Your task to perform on an android device: turn on location history Image 0: 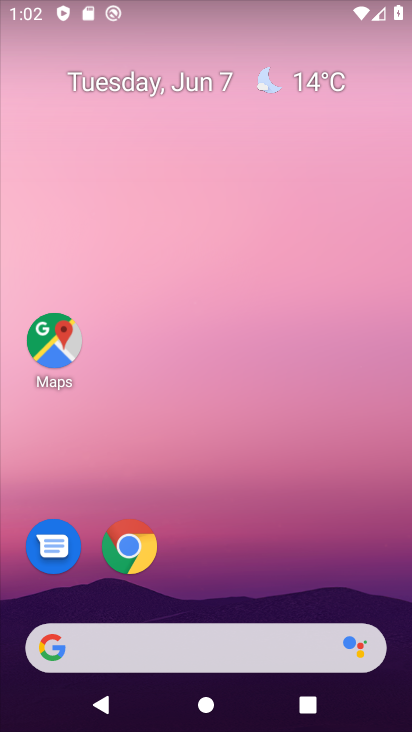
Step 0: drag from (215, 591) to (230, 76)
Your task to perform on an android device: turn on location history Image 1: 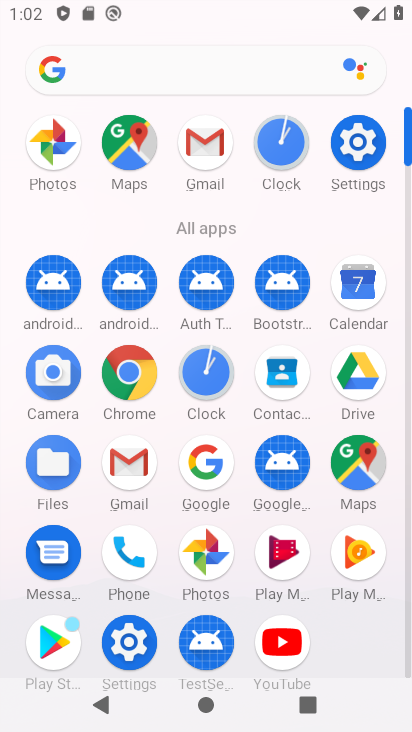
Step 1: click (360, 147)
Your task to perform on an android device: turn on location history Image 2: 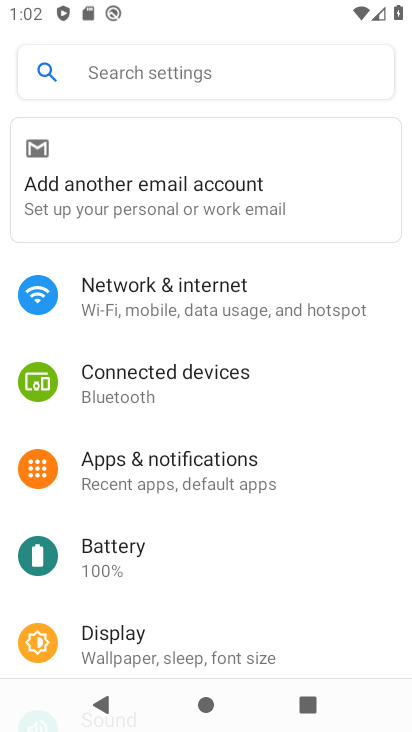
Step 2: drag from (157, 652) to (233, 56)
Your task to perform on an android device: turn on location history Image 3: 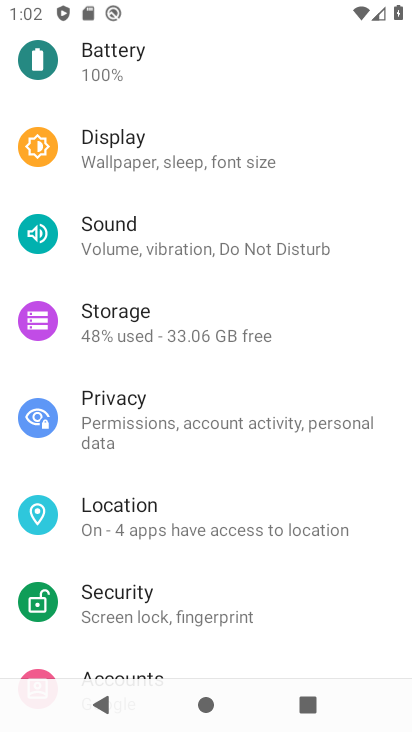
Step 3: click (174, 507)
Your task to perform on an android device: turn on location history Image 4: 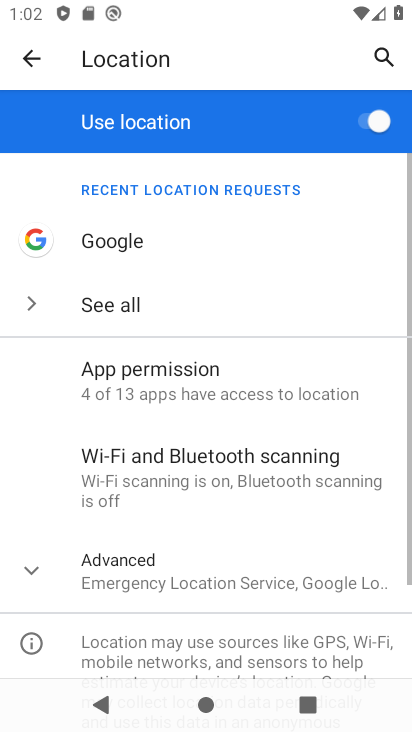
Step 4: drag from (180, 654) to (287, 117)
Your task to perform on an android device: turn on location history Image 5: 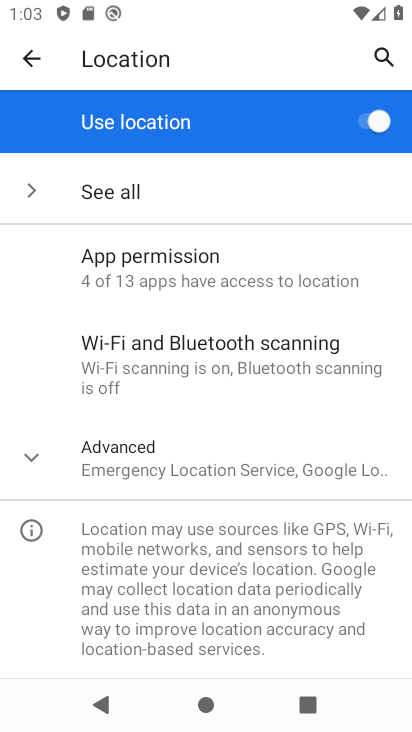
Step 5: click (165, 456)
Your task to perform on an android device: turn on location history Image 6: 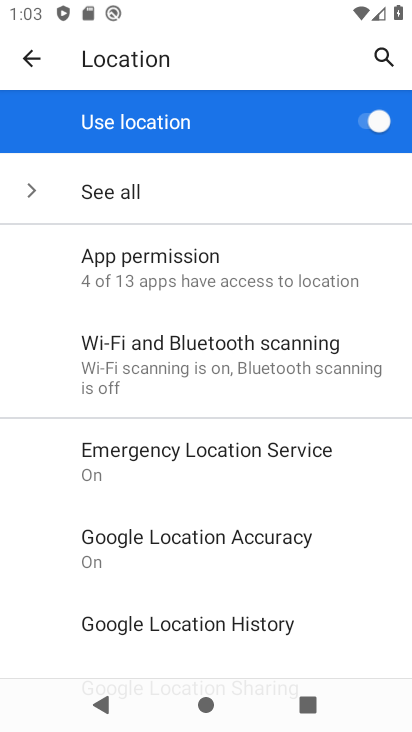
Step 6: click (212, 613)
Your task to perform on an android device: turn on location history Image 7: 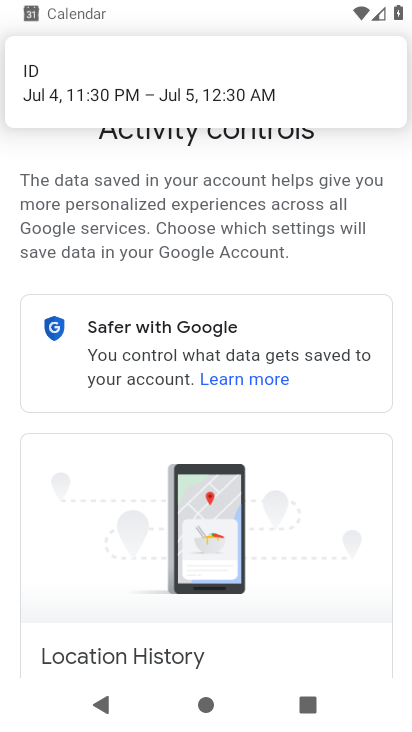
Step 7: task complete